Your task to perform on an android device: Open the Play Movies app and select the watchlist tab. Image 0: 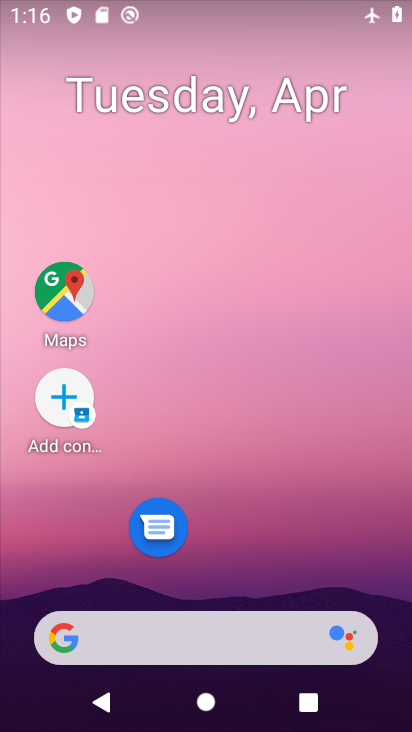
Step 0: drag from (223, 569) to (221, 69)
Your task to perform on an android device: Open the Play Movies app and select the watchlist tab. Image 1: 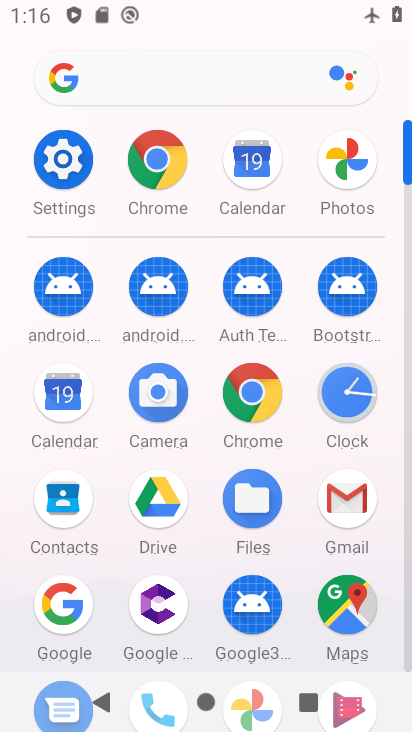
Step 1: drag from (198, 564) to (217, 286)
Your task to perform on an android device: Open the Play Movies app and select the watchlist tab. Image 2: 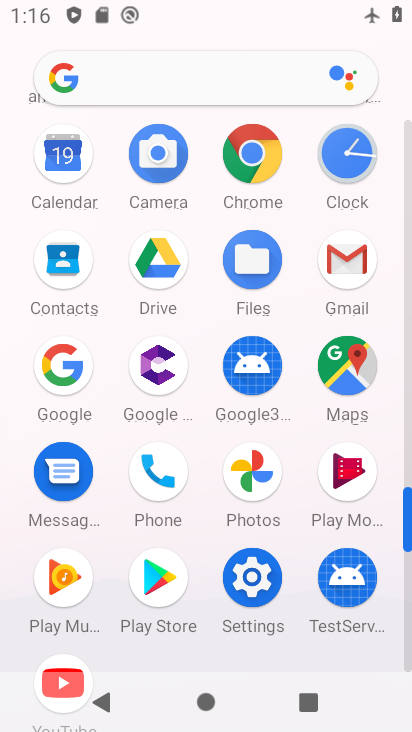
Step 2: click (346, 469)
Your task to perform on an android device: Open the Play Movies app and select the watchlist tab. Image 3: 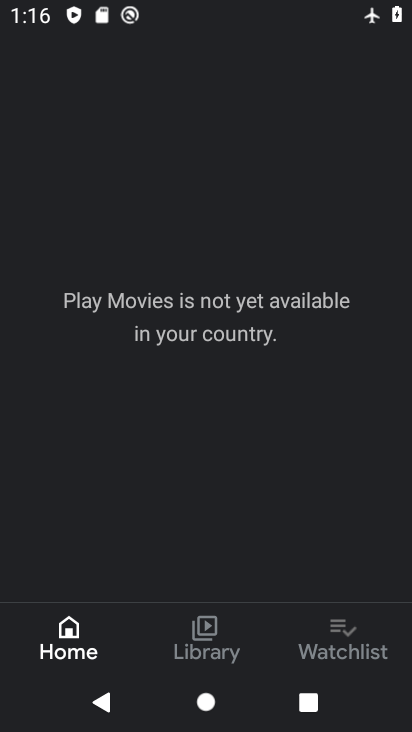
Step 3: click (340, 651)
Your task to perform on an android device: Open the Play Movies app and select the watchlist tab. Image 4: 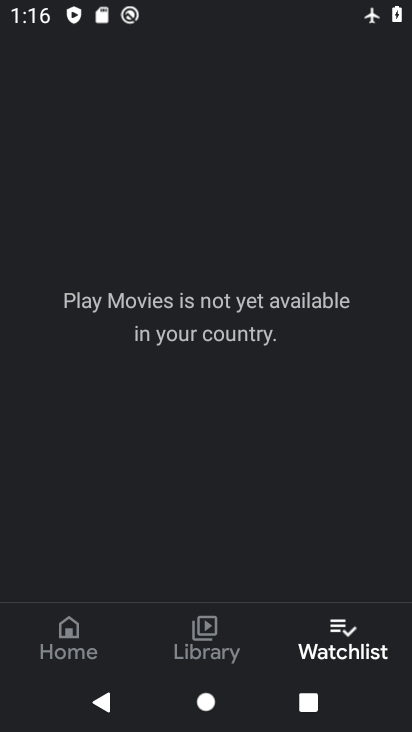
Step 4: task complete